Your task to perform on an android device: search for starred emails in the gmail app Image 0: 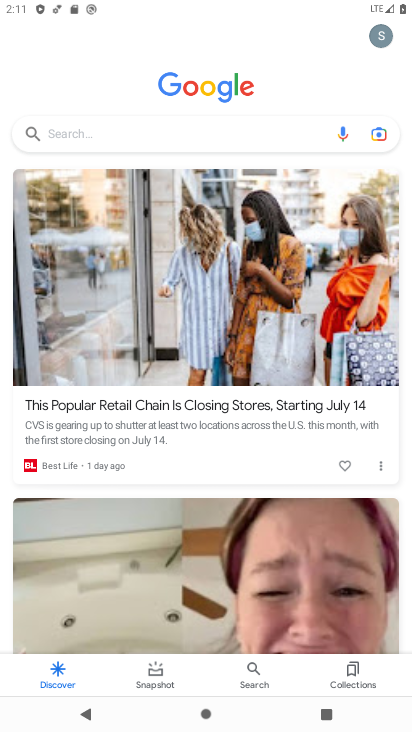
Step 0: press home button
Your task to perform on an android device: search for starred emails in the gmail app Image 1: 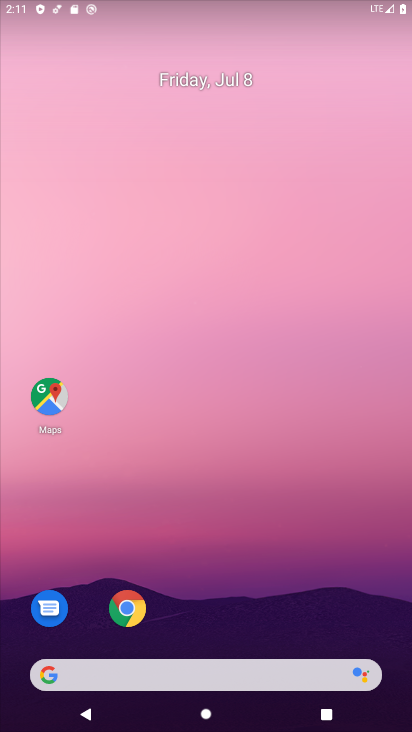
Step 1: drag from (220, 605) to (264, 118)
Your task to perform on an android device: search for starred emails in the gmail app Image 2: 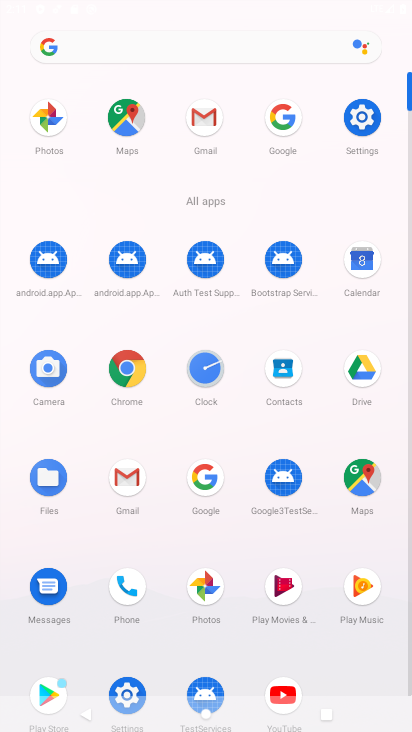
Step 2: click (200, 115)
Your task to perform on an android device: search for starred emails in the gmail app Image 3: 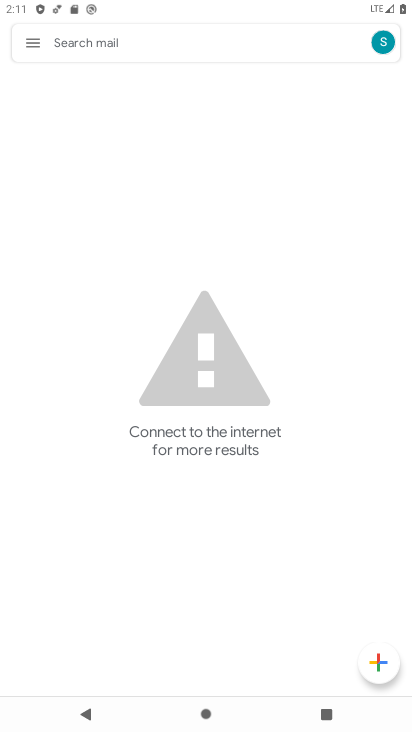
Step 3: click (31, 43)
Your task to perform on an android device: search for starred emails in the gmail app Image 4: 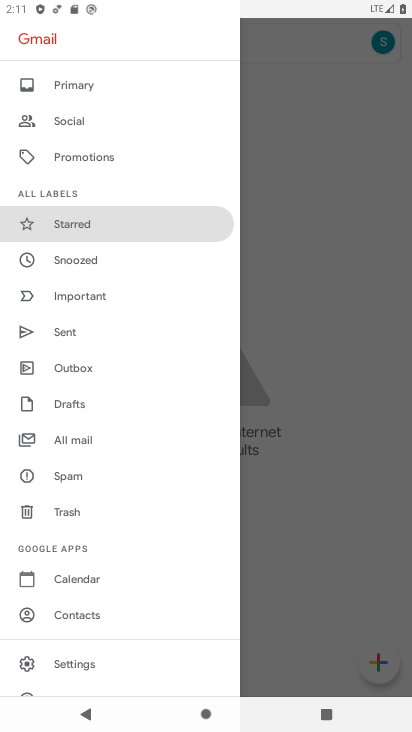
Step 4: click (97, 216)
Your task to perform on an android device: search for starred emails in the gmail app Image 5: 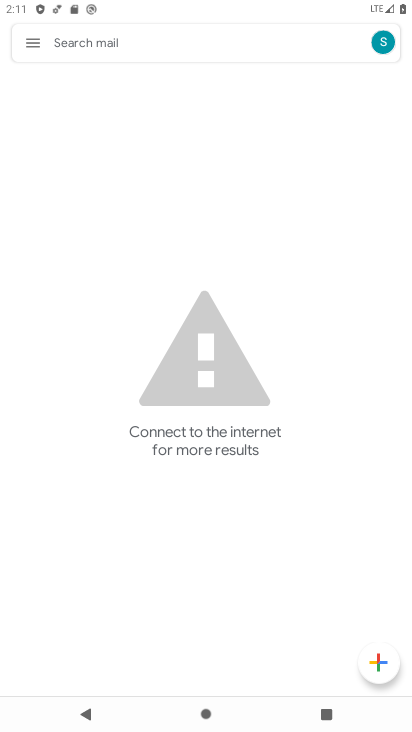
Step 5: task complete